Your task to perform on an android device: Check the weather Image 0: 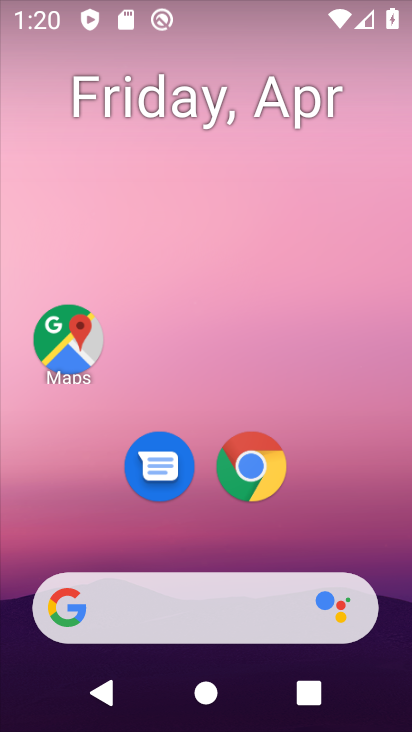
Step 0: drag from (57, 249) to (403, 305)
Your task to perform on an android device: Check the weather Image 1: 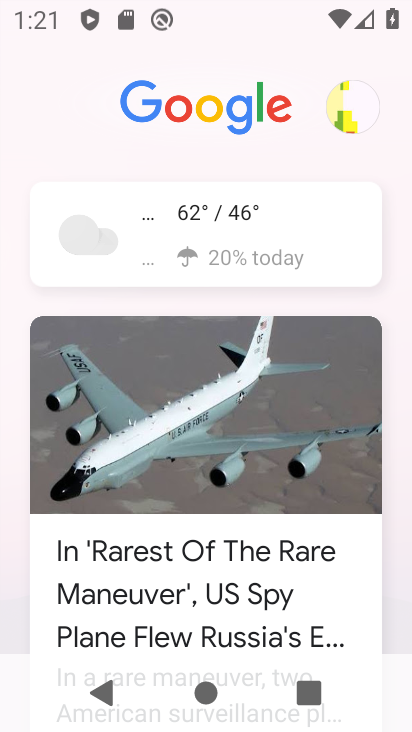
Step 1: task complete